Your task to perform on an android device: set default search engine in the chrome app Image 0: 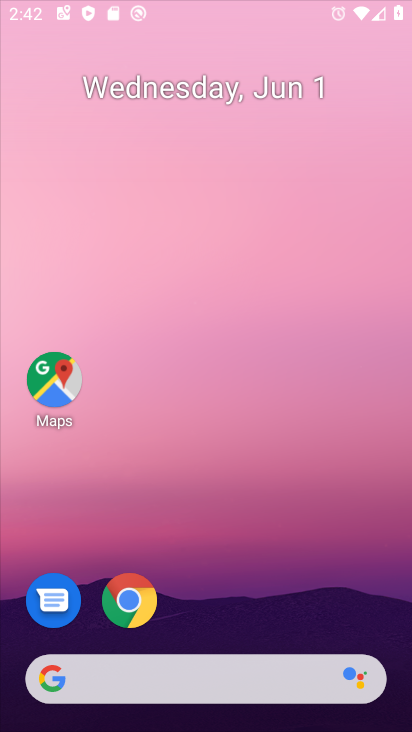
Step 0: press back button
Your task to perform on an android device: set default search engine in the chrome app Image 1: 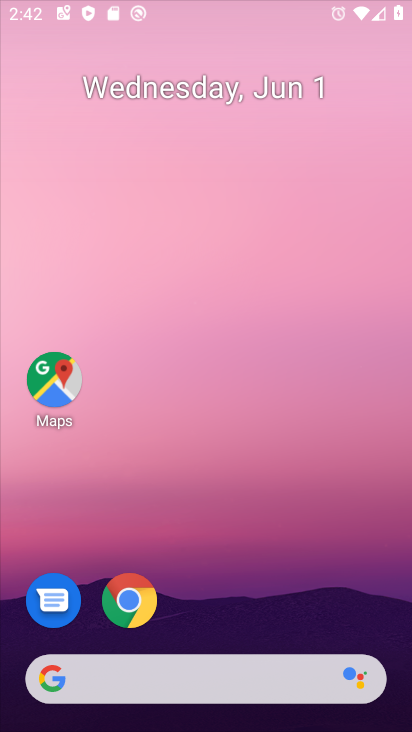
Step 1: drag from (313, 622) to (167, 0)
Your task to perform on an android device: set default search engine in the chrome app Image 2: 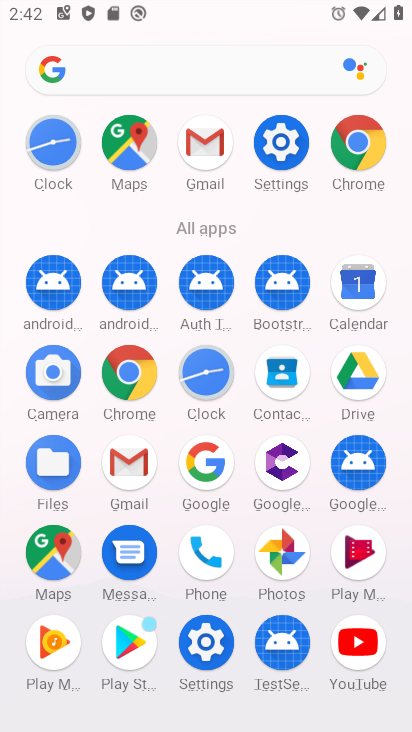
Step 2: drag from (11, 486) to (12, 151)
Your task to perform on an android device: set default search engine in the chrome app Image 3: 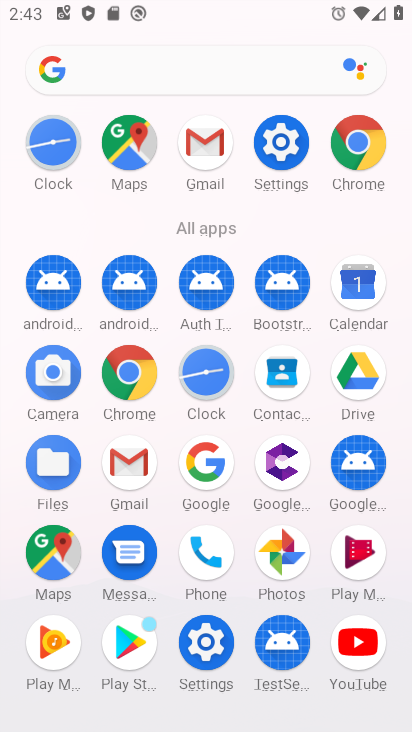
Step 3: click (129, 367)
Your task to perform on an android device: set default search engine in the chrome app Image 4: 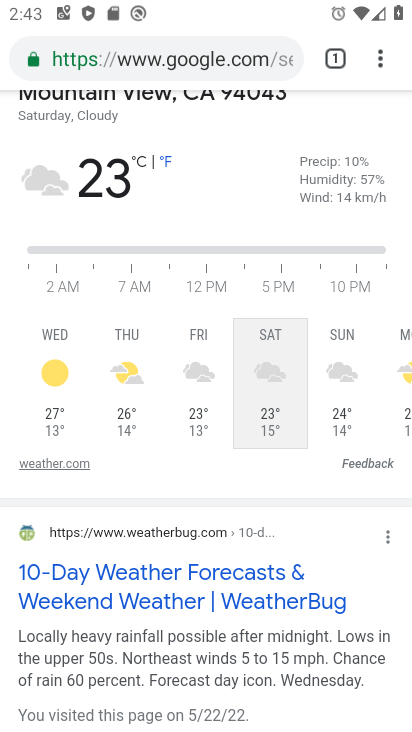
Step 4: task complete